Your task to perform on an android device: Open privacy settings Image 0: 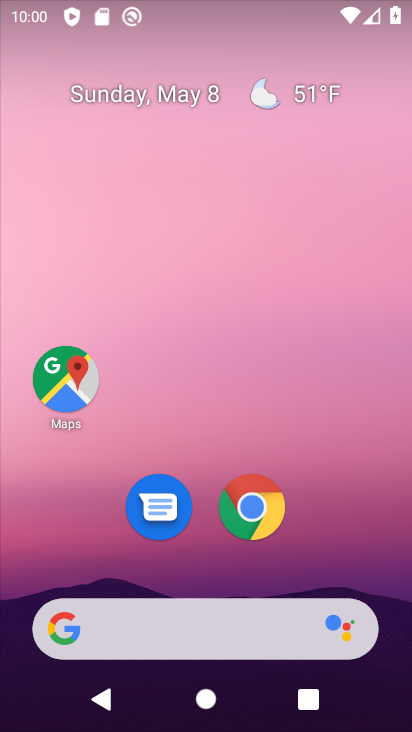
Step 0: press home button
Your task to perform on an android device: Open privacy settings Image 1: 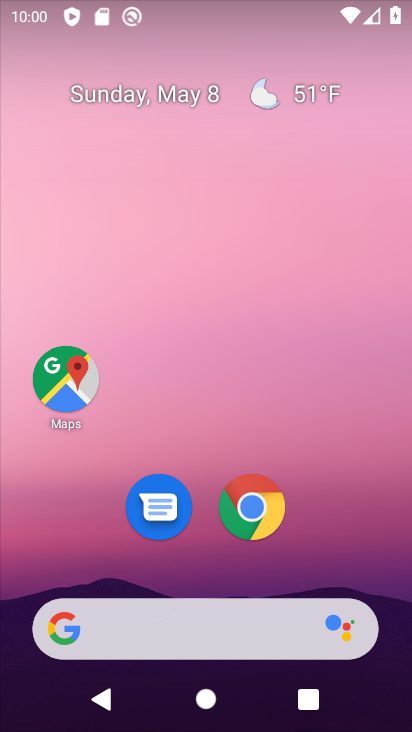
Step 1: drag from (206, 578) to (165, 65)
Your task to perform on an android device: Open privacy settings Image 2: 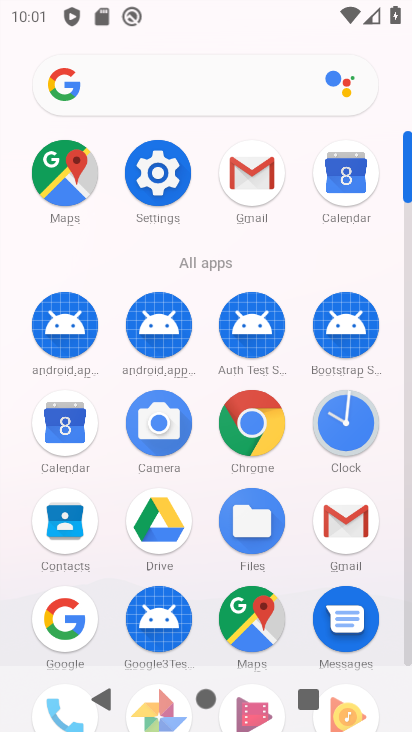
Step 2: click (156, 164)
Your task to perform on an android device: Open privacy settings Image 3: 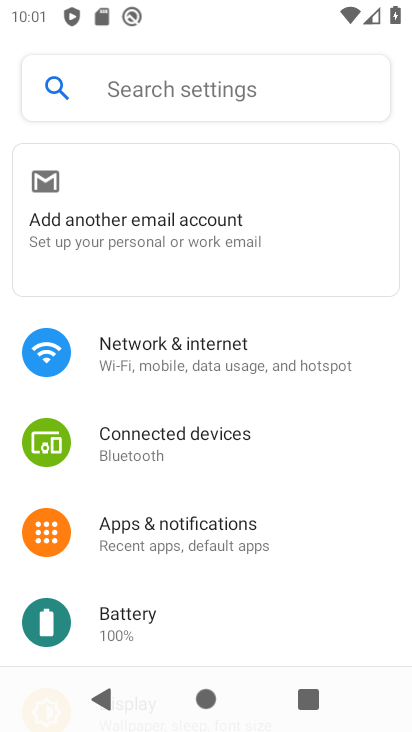
Step 3: drag from (172, 645) to (148, 143)
Your task to perform on an android device: Open privacy settings Image 4: 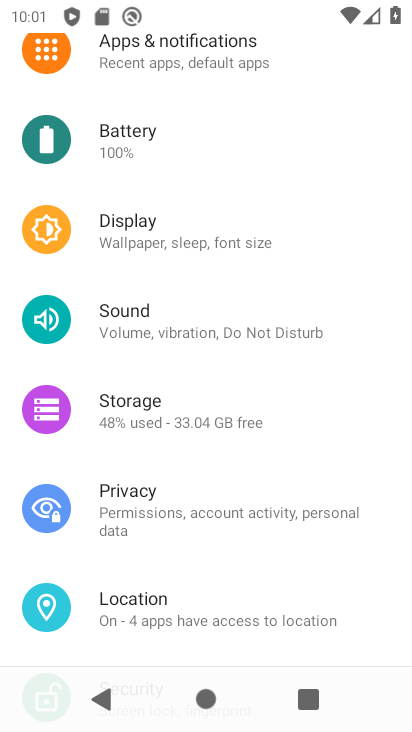
Step 4: click (165, 490)
Your task to perform on an android device: Open privacy settings Image 5: 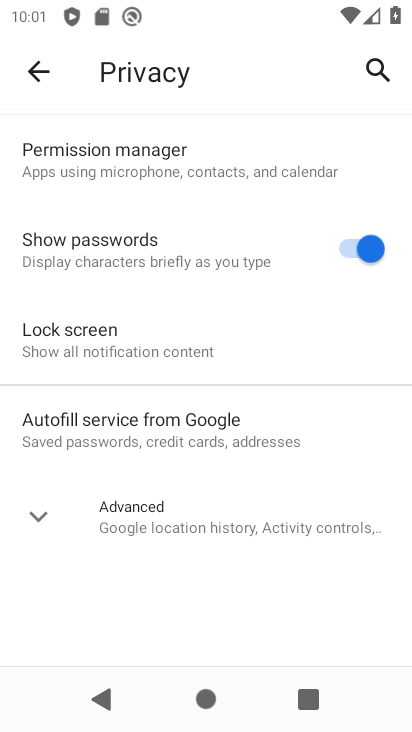
Step 5: click (42, 516)
Your task to perform on an android device: Open privacy settings Image 6: 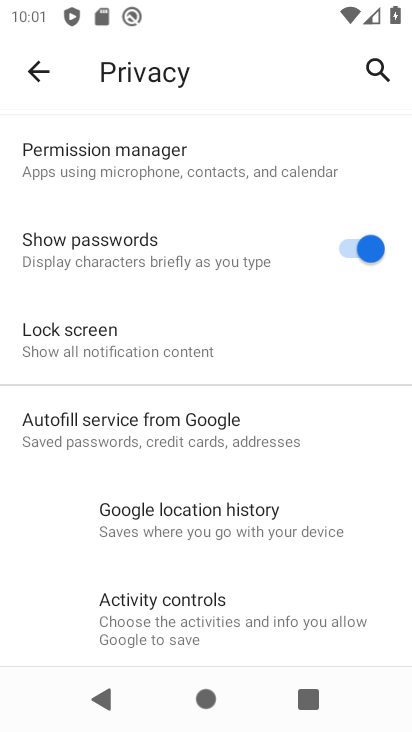
Step 6: task complete